Your task to perform on an android device: toggle priority inbox in the gmail app Image 0: 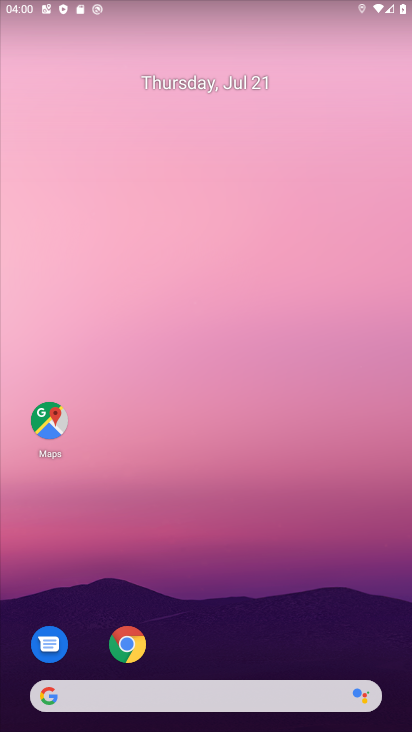
Step 0: drag from (242, 657) to (291, 6)
Your task to perform on an android device: toggle priority inbox in the gmail app Image 1: 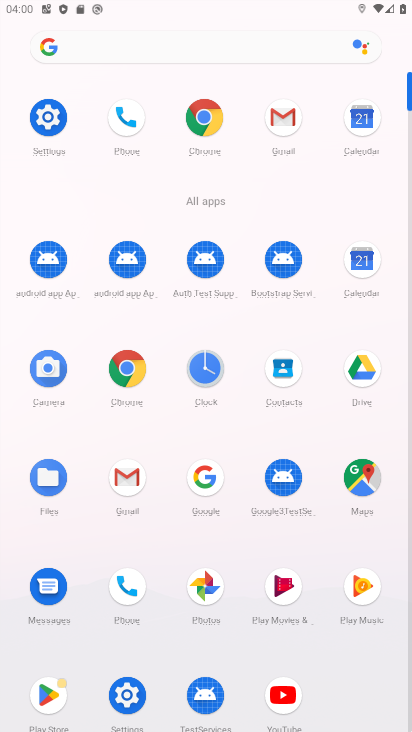
Step 1: click (282, 129)
Your task to perform on an android device: toggle priority inbox in the gmail app Image 2: 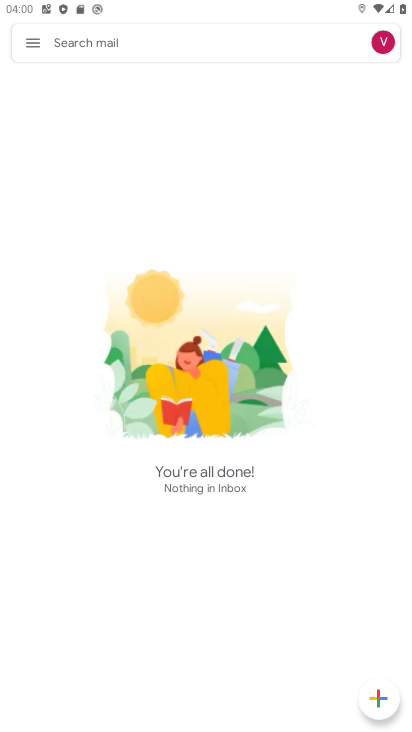
Step 2: click (30, 42)
Your task to perform on an android device: toggle priority inbox in the gmail app Image 3: 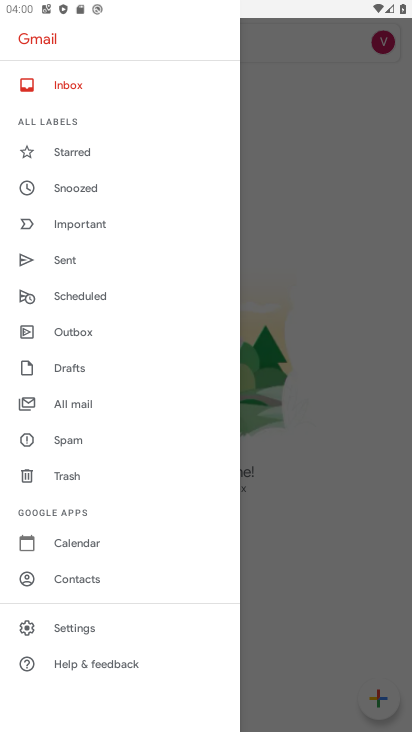
Step 3: click (87, 631)
Your task to perform on an android device: toggle priority inbox in the gmail app Image 4: 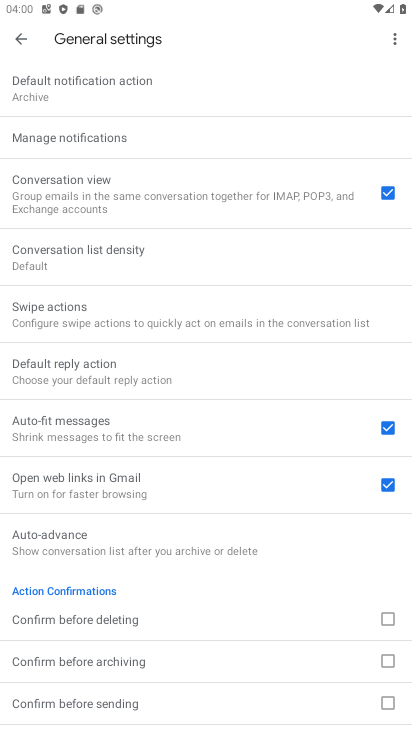
Step 4: click (16, 42)
Your task to perform on an android device: toggle priority inbox in the gmail app Image 5: 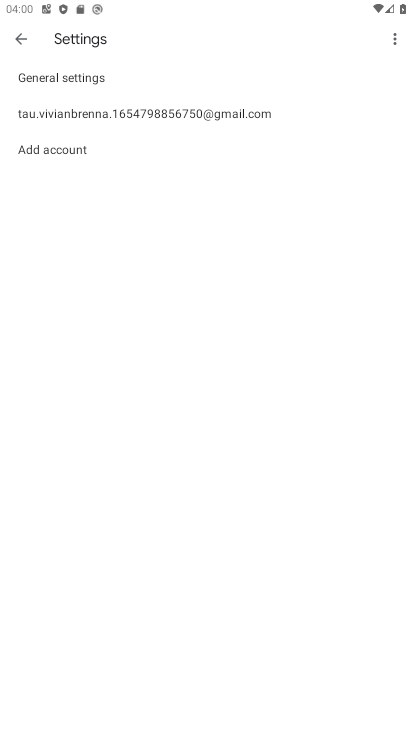
Step 5: click (89, 120)
Your task to perform on an android device: toggle priority inbox in the gmail app Image 6: 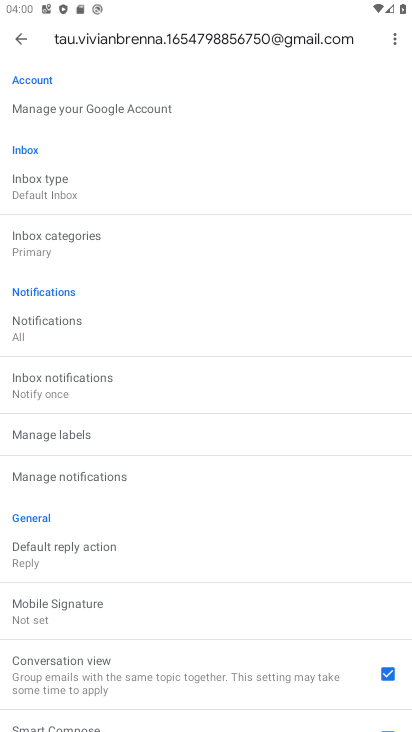
Step 6: click (55, 191)
Your task to perform on an android device: toggle priority inbox in the gmail app Image 7: 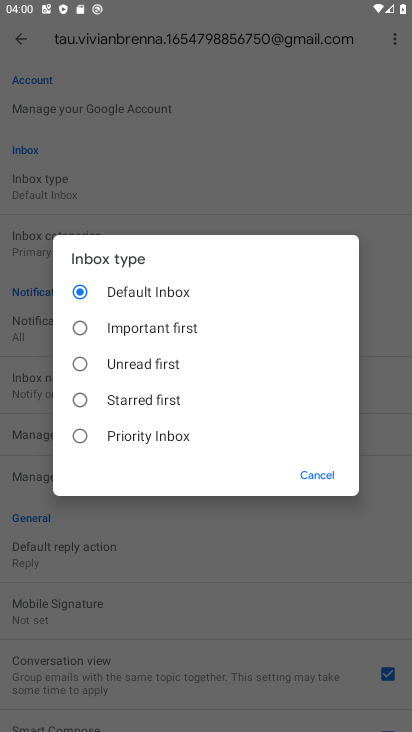
Step 7: click (83, 431)
Your task to perform on an android device: toggle priority inbox in the gmail app Image 8: 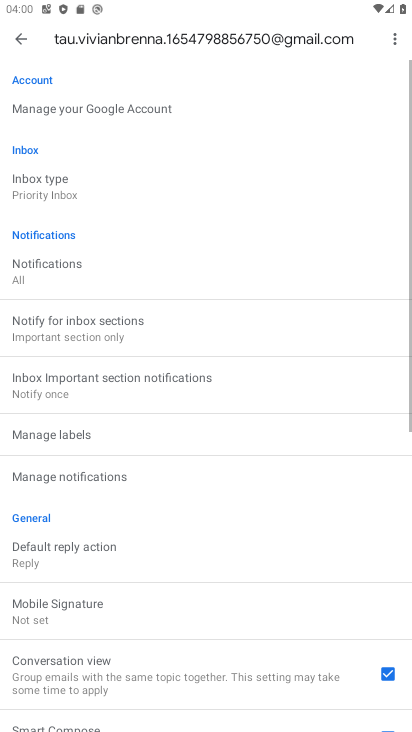
Step 8: task complete